Your task to perform on an android device: Open Google Chrome and click the shortcut for Amazon.com Image 0: 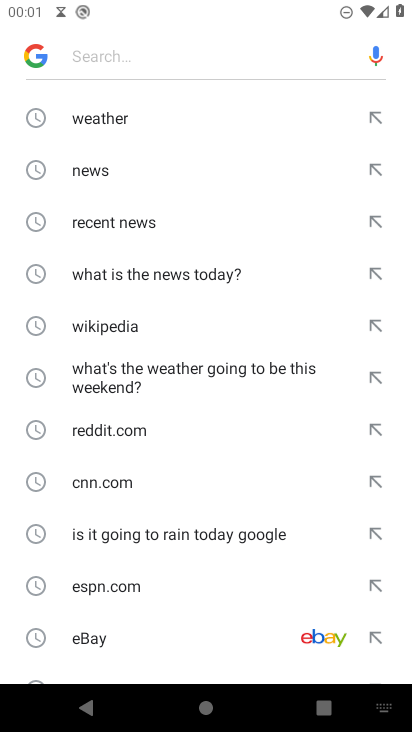
Step 0: press home button
Your task to perform on an android device: Open Google Chrome and click the shortcut for Amazon.com Image 1: 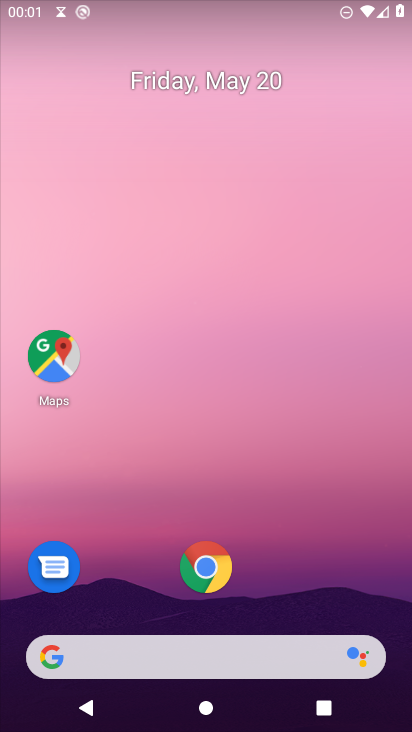
Step 1: click (205, 559)
Your task to perform on an android device: Open Google Chrome and click the shortcut for Amazon.com Image 2: 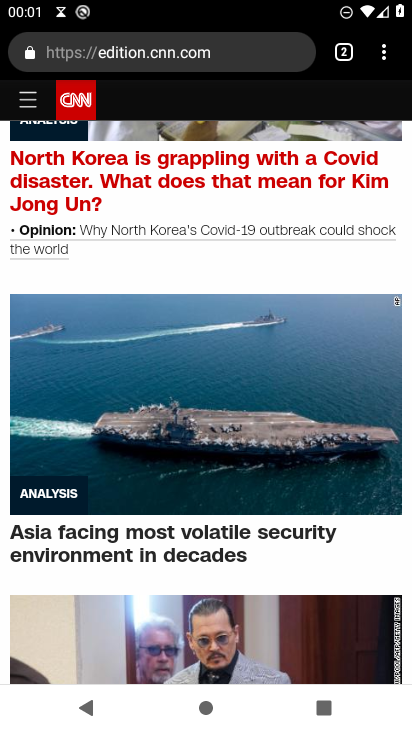
Step 2: click (343, 48)
Your task to perform on an android device: Open Google Chrome and click the shortcut for Amazon.com Image 3: 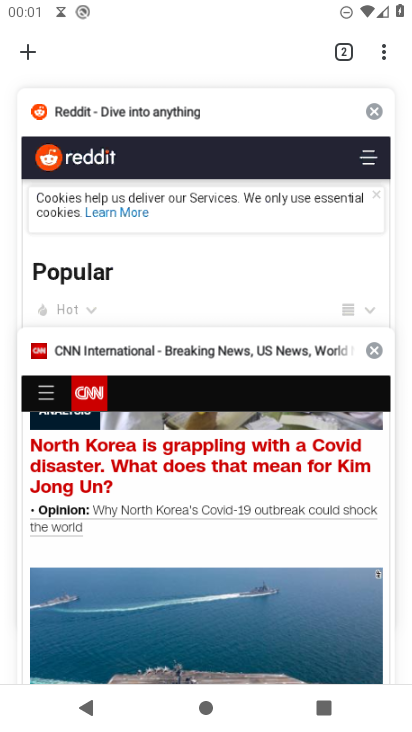
Step 3: click (376, 107)
Your task to perform on an android device: Open Google Chrome and click the shortcut for Amazon.com Image 4: 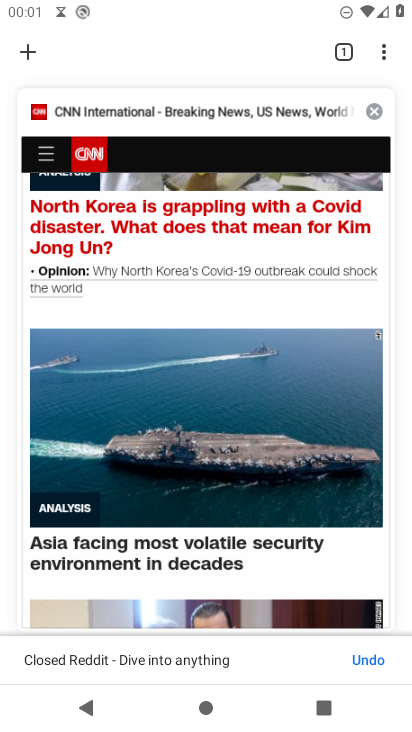
Step 4: click (376, 107)
Your task to perform on an android device: Open Google Chrome and click the shortcut for Amazon.com Image 5: 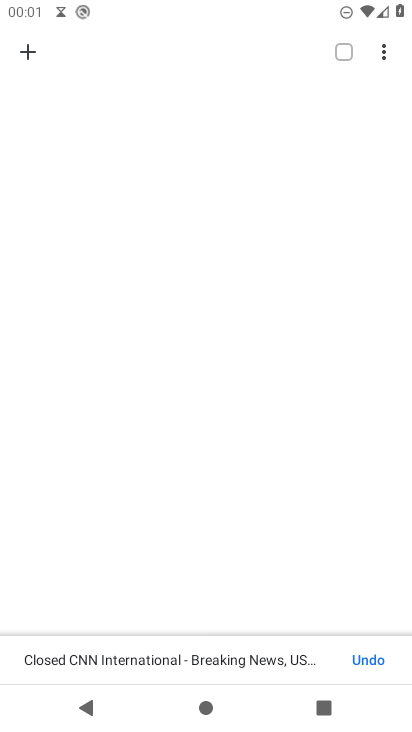
Step 5: click (27, 56)
Your task to perform on an android device: Open Google Chrome and click the shortcut for Amazon.com Image 6: 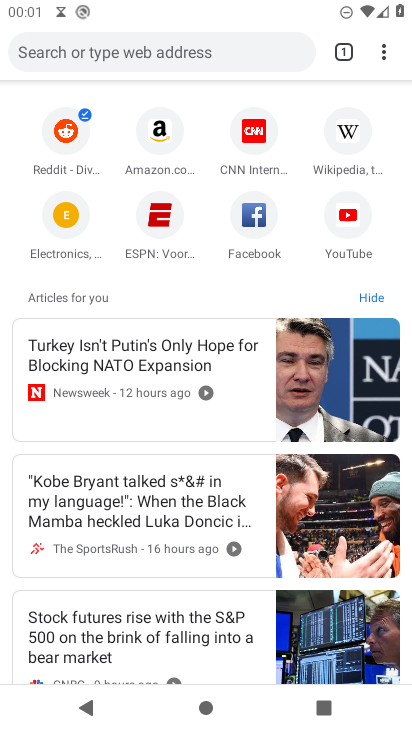
Step 6: click (161, 124)
Your task to perform on an android device: Open Google Chrome and click the shortcut for Amazon.com Image 7: 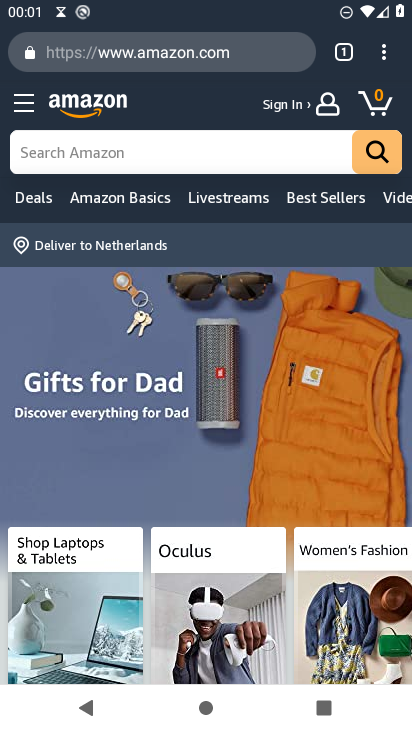
Step 7: task complete